Your task to perform on an android device: Check the weather Image 0: 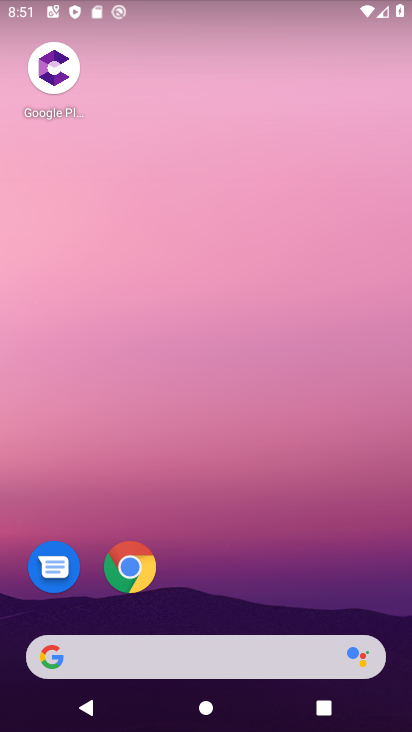
Step 0: click (190, 660)
Your task to perform on an android device: Check the weather Image 1: 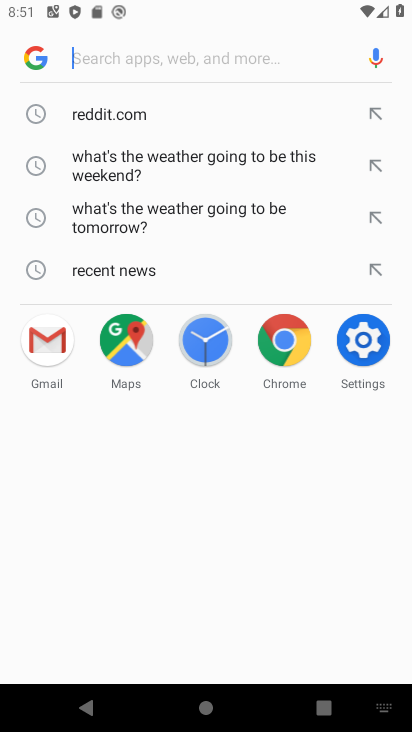
Step 1: press home button
Your task to perform on an android device: Check the weather Image 2: 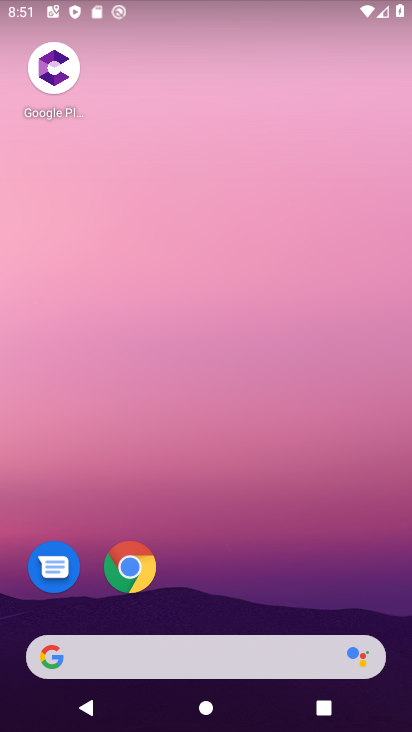
Step 2: drag from (133, 420) to (404, 297)
Your task to perform on an android device: Check the weather Image 3: 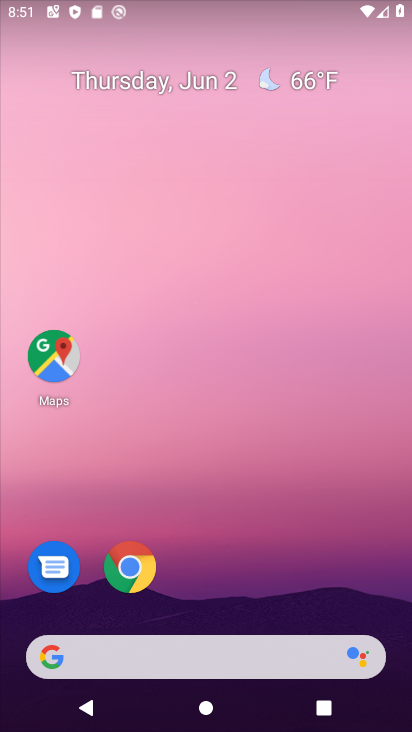
Step 3: click (306, 88)
Your task to perform on an android device: Check the weather Image 4: 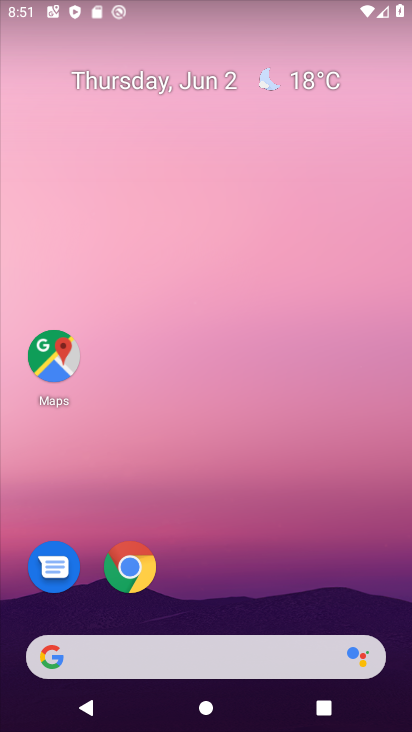
Step 4: click (301, 79)
Your task to perform on an android device: Check the weather Image 5: 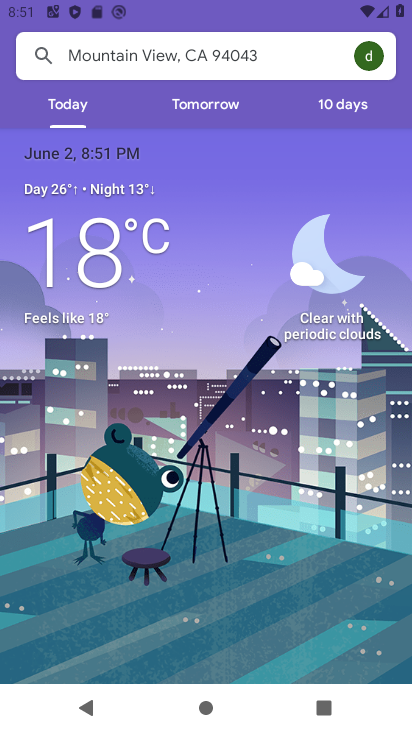
Step 5: task complete